Your task to perform on an android device: Open wifi settings Image 0: 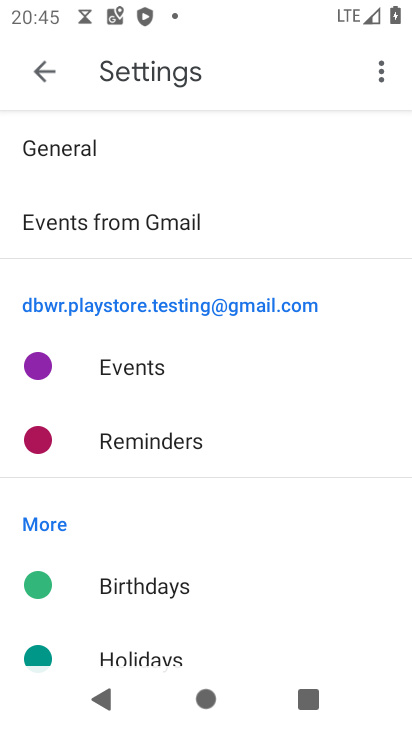
Step 0: press home button
Your task to perform on an android device: Open wifi settings Image 1: 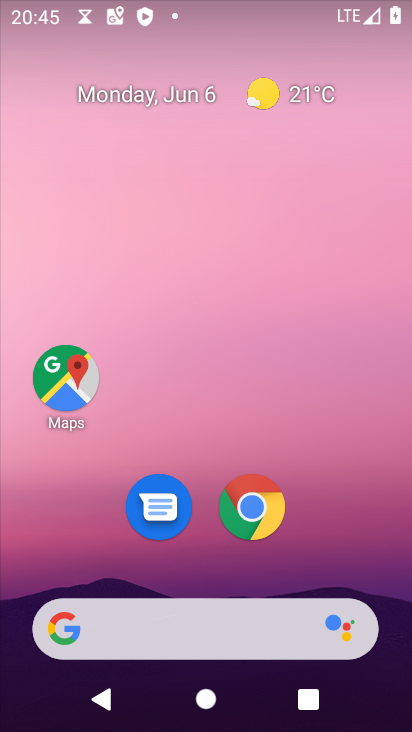
Step 1: drag from (220, 570) to (282, 4)
Your task to perform on an android device: Open wifi settings Image 2: 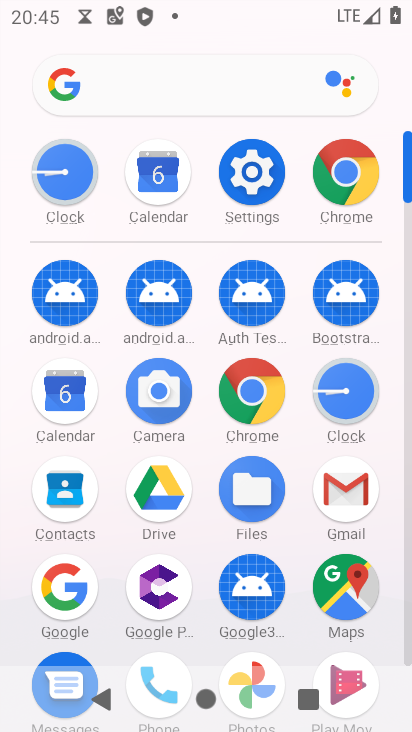
Step 2: click (259, 193)
Your task to perform on an android device: Open wifi settings Image 3: 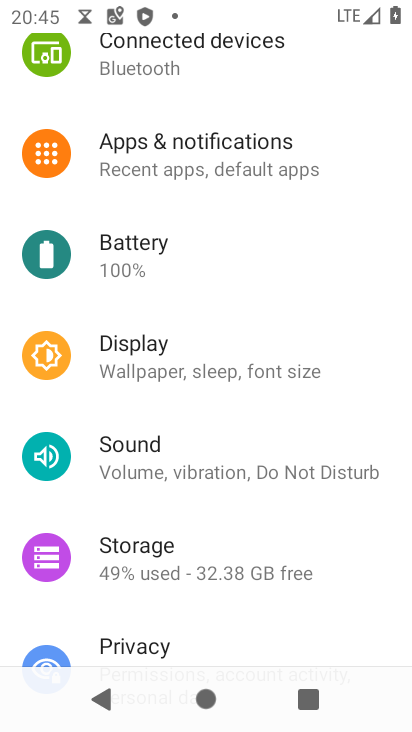
Step 3: drag from (243, 196) to (261, 545)
Your task to perform on an android device: Open wifi settings Image 4: 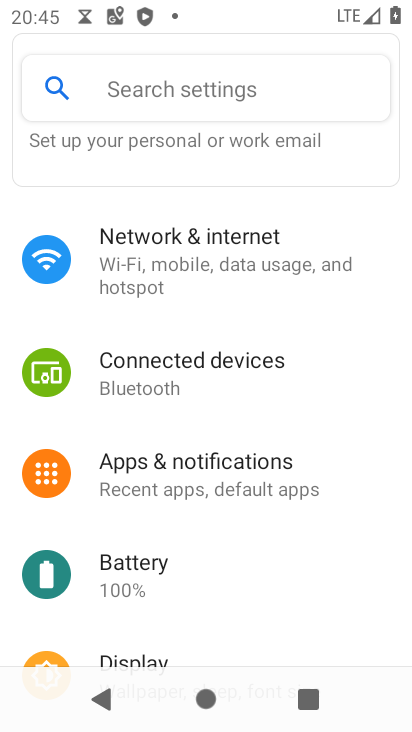
Step 4: click (247, 264)
Your task to perform on an android device: Open wifi settings Image 5: 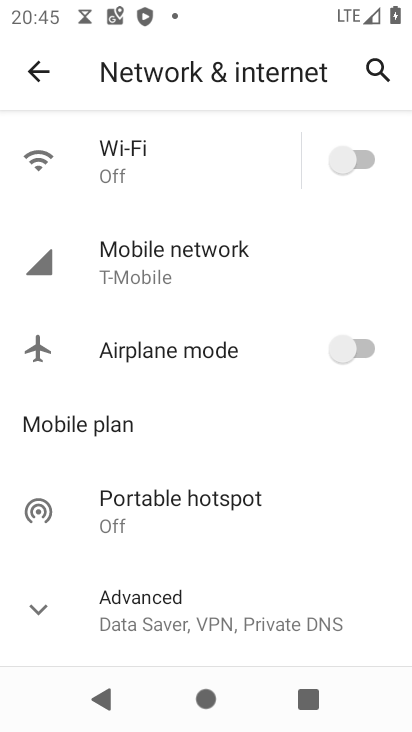
Step 5: click (136, 157)
Your task to perform on an android device: Open wifi settings Image 6: 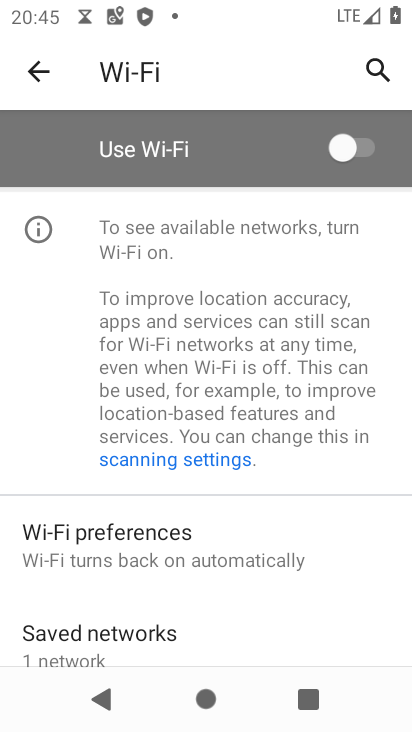
Step 6: task complete